Your task to perform on an android device: Open ESPN.com Image 0: 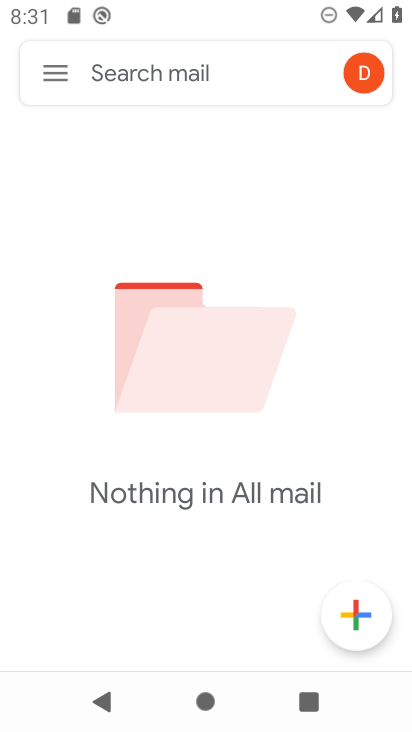
Step 0: press home button
Your task to perform on an android device: Open ESPN.com Image 1: 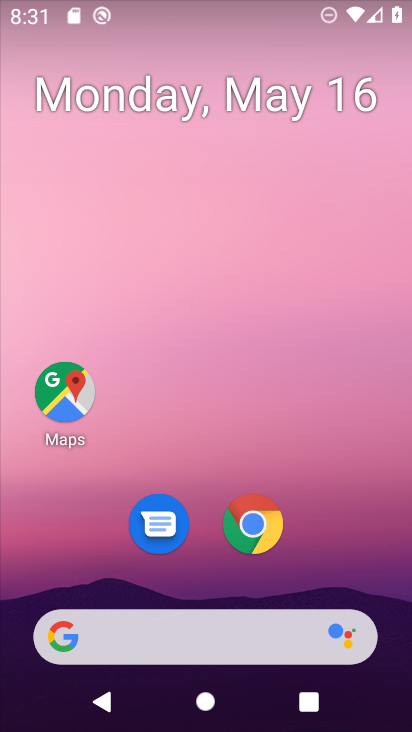
Step 1: click (250, 650)
Your task to perform on an android device: Open ESPN.com Image 2: 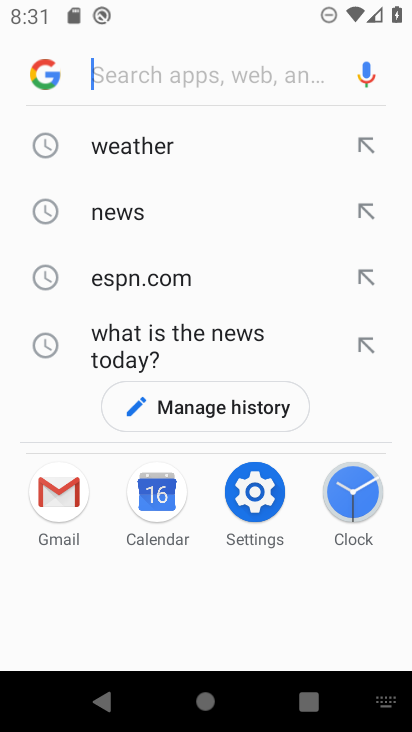
Step 2: click (174, 274)
Your task to perform on an android device: Open ESPN.com Image 3: 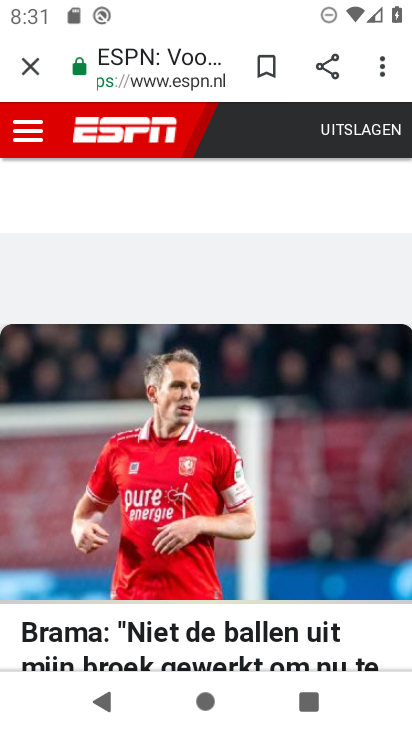
Step 3: task complete